Your task to perform on an android device: toggle notification dots Image 0: 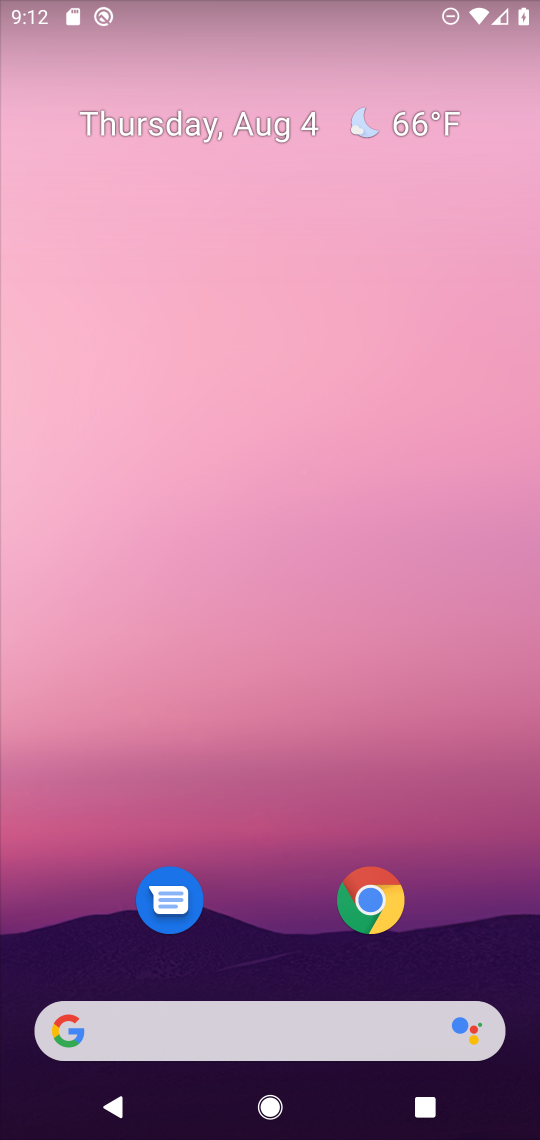
Step 0: drag from (195, 558) to (195, 348)
Your task to perform on an android device: toggle notification dots Image 1: 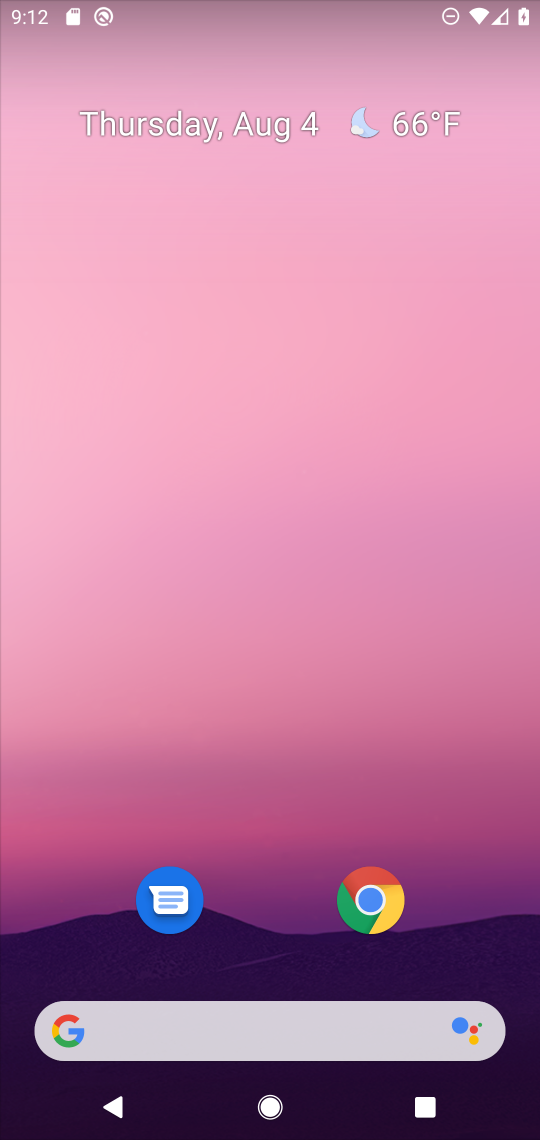
Step 1: drag from (268, 975) to (230, 138)
Your task to perform on an android device: toggle notification dots Image 2: 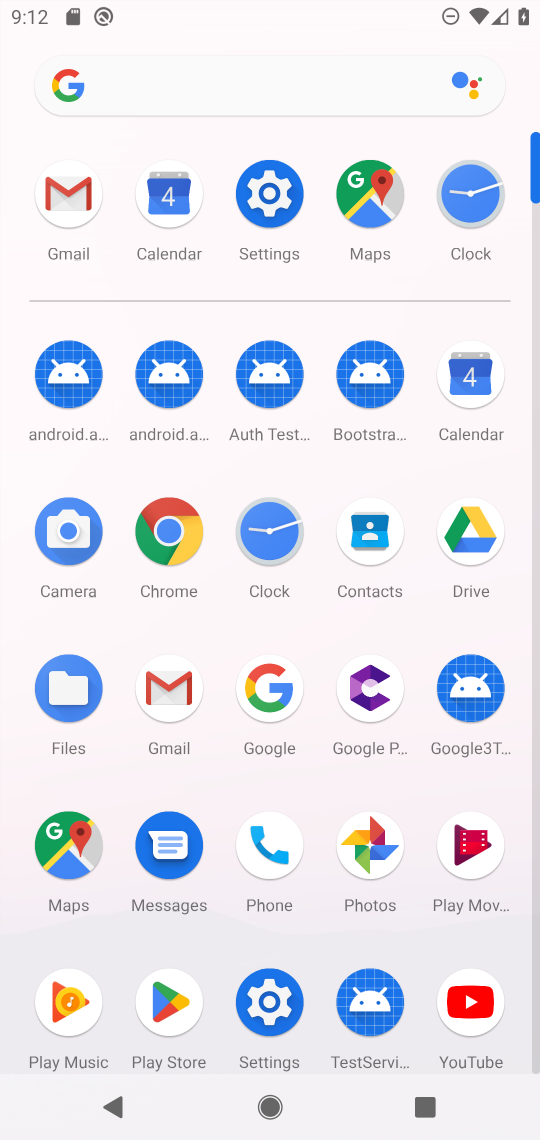
Step 2: click (268, 198)
Your task to perform on an android device: toggle notification dots Image 3: 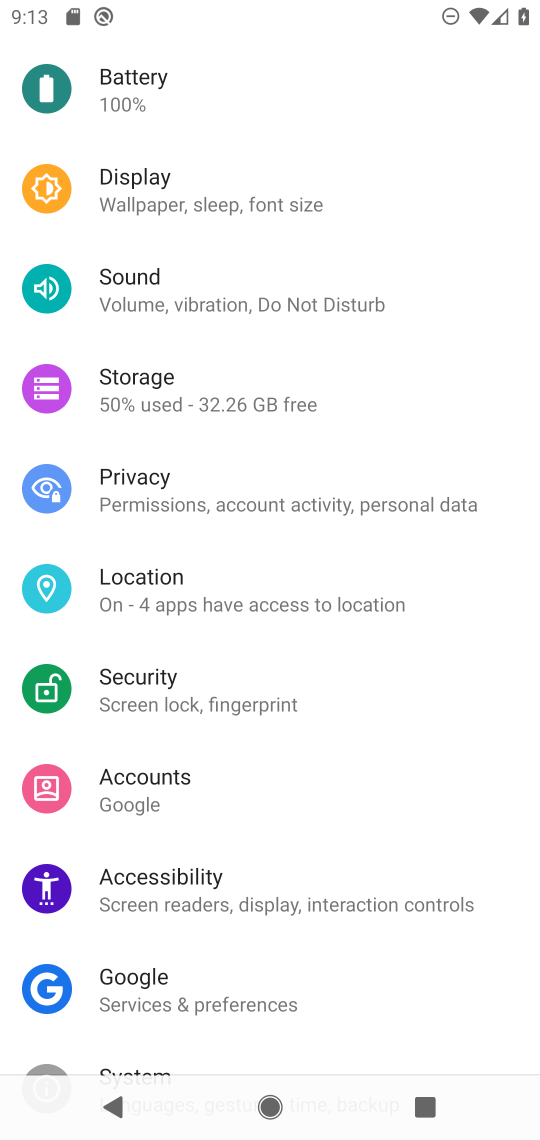
Step 3: drag from (227, 333) to (181, 1122)
Your task to perform on an android device: toggle notification dots Image 4: 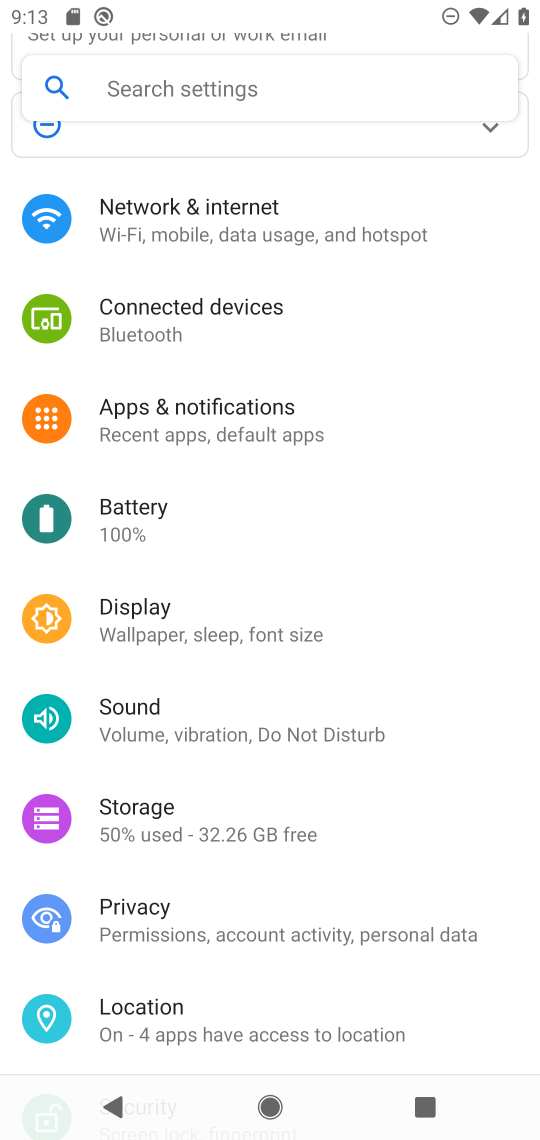
Step 4: click (129, 427)
Your task to perform on an android device: toggle notification dots Image 5: 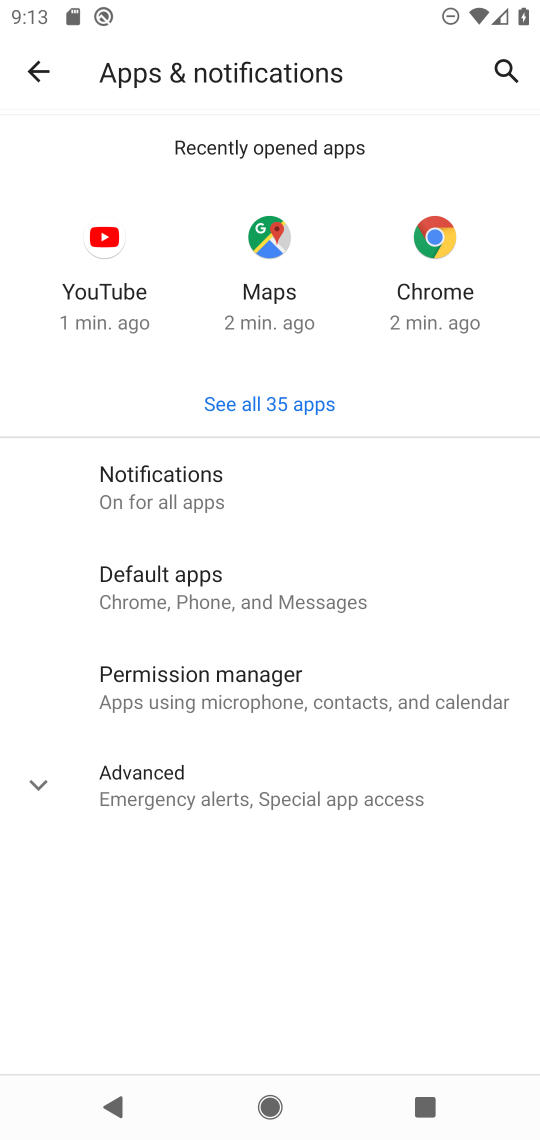
Step 5: click (163, 504)
Your task to perform on an android device: toggle notification dots Image 6: 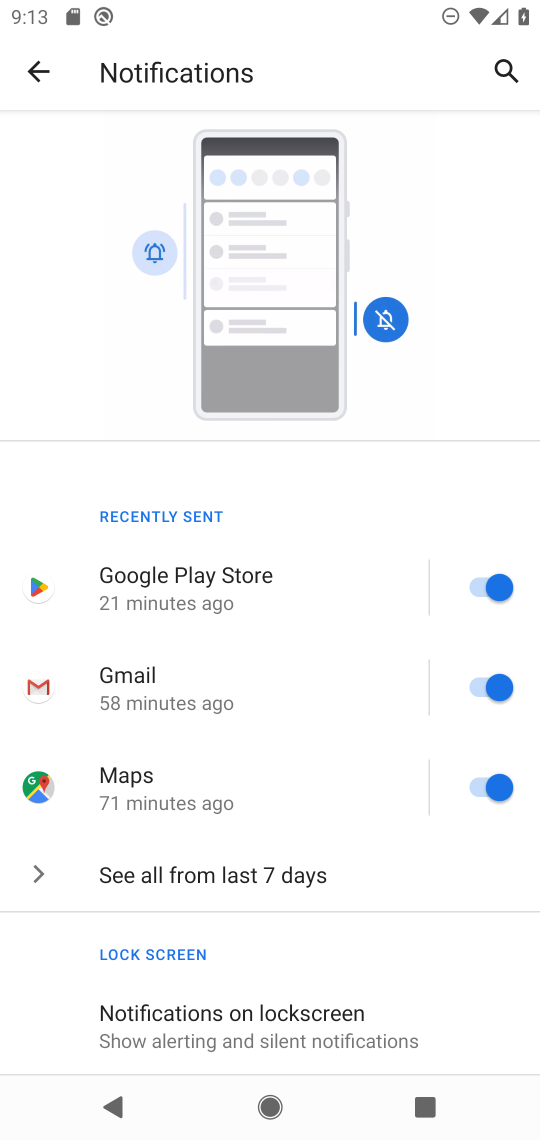
Step 6: drag from (218, 905) to (200, 458)
Your task to perform on an android device: toggle notification dots Image 7: 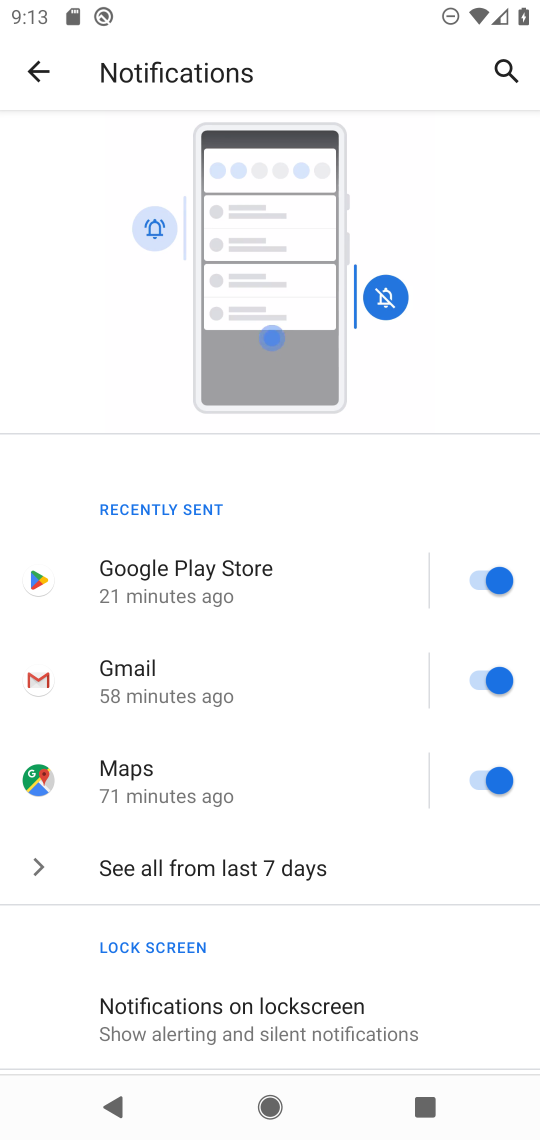
Step 7: drag from (283, 903) to (260, 227)
Your task to perform on an android device: toggle notification dots Image 8: 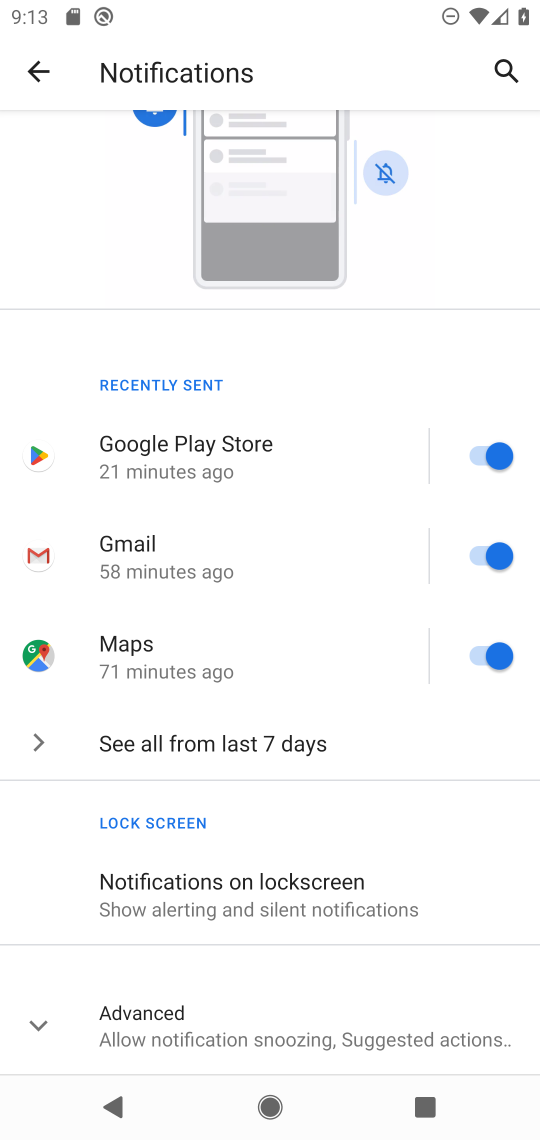
Step 8: click (133, 1023)
Your task to perform on an android device: toggle notification dots Image 9: 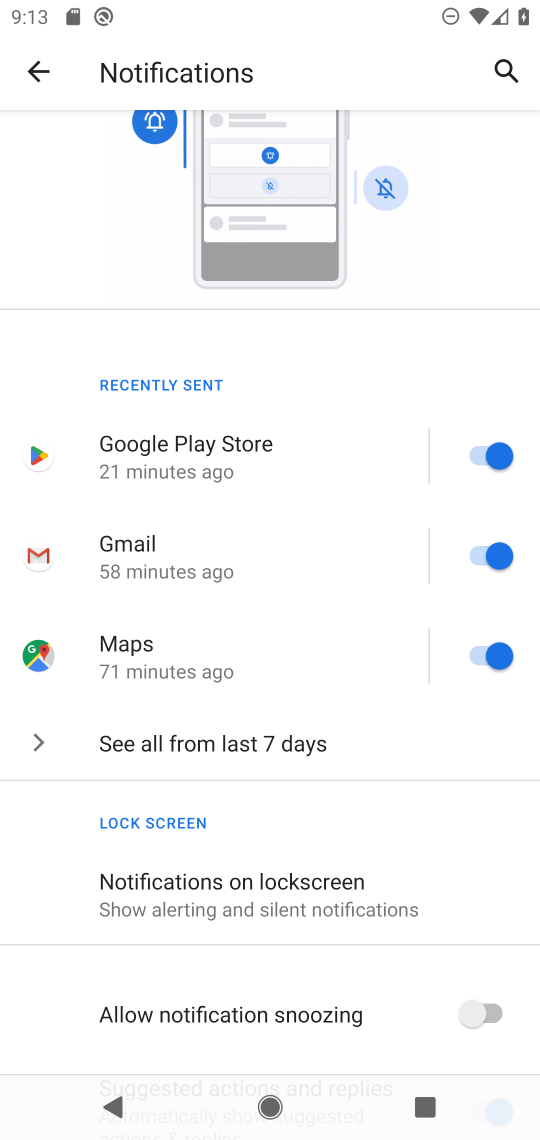
Step 9: drag from (264, 607) to (286, 158)
Your task to perform on an android device: toggle notification dots Image 10: 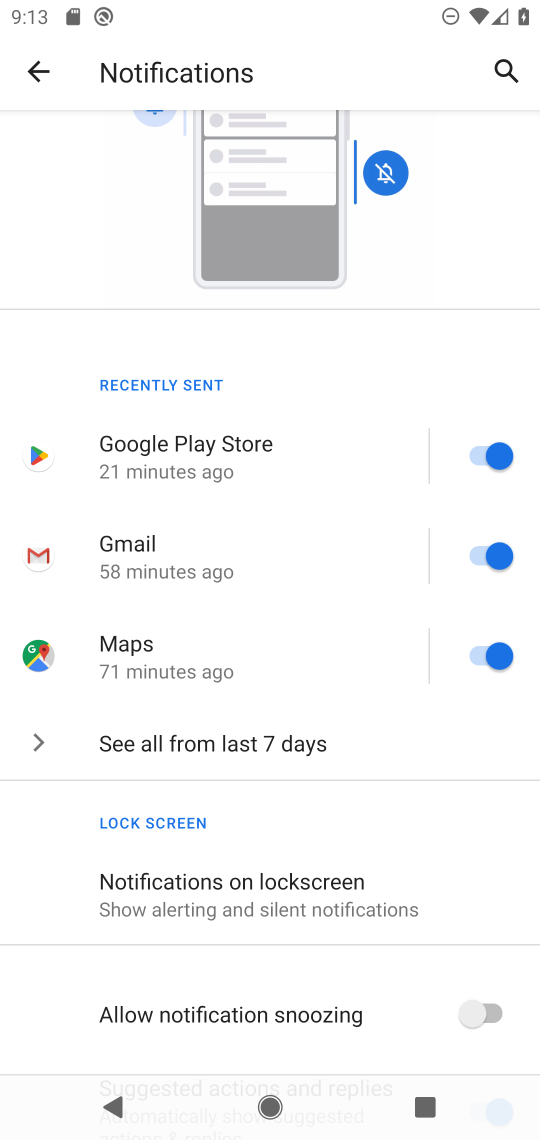
Step 10: drag from (321, 994) to (250, 499)
Your task to perform on an android device: toggle notification dots Image 11: 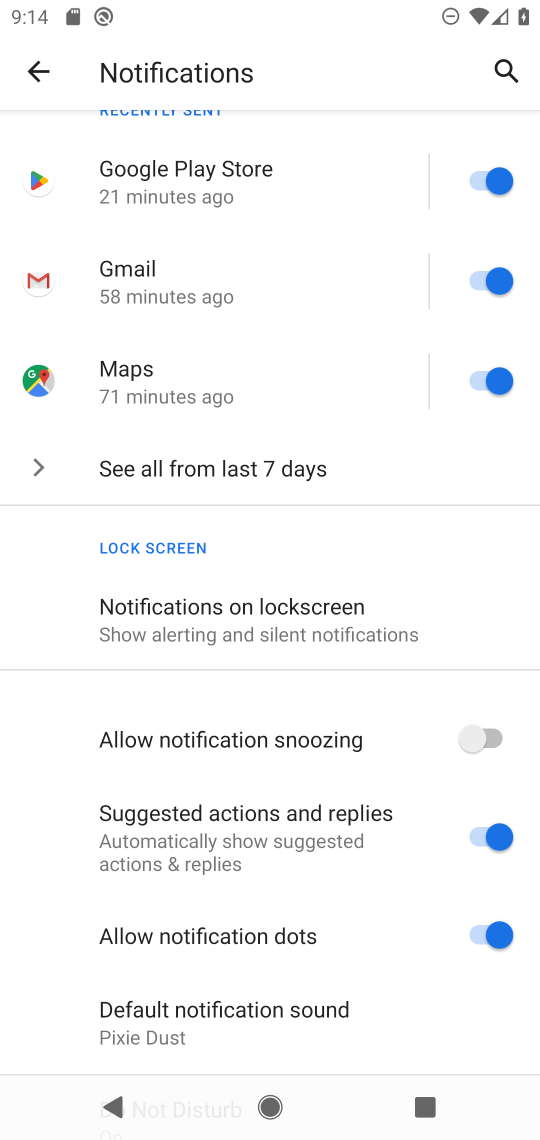
Step 11: click (481, 931)
Your task to perform on an android device: toggle notification dots Image 12: 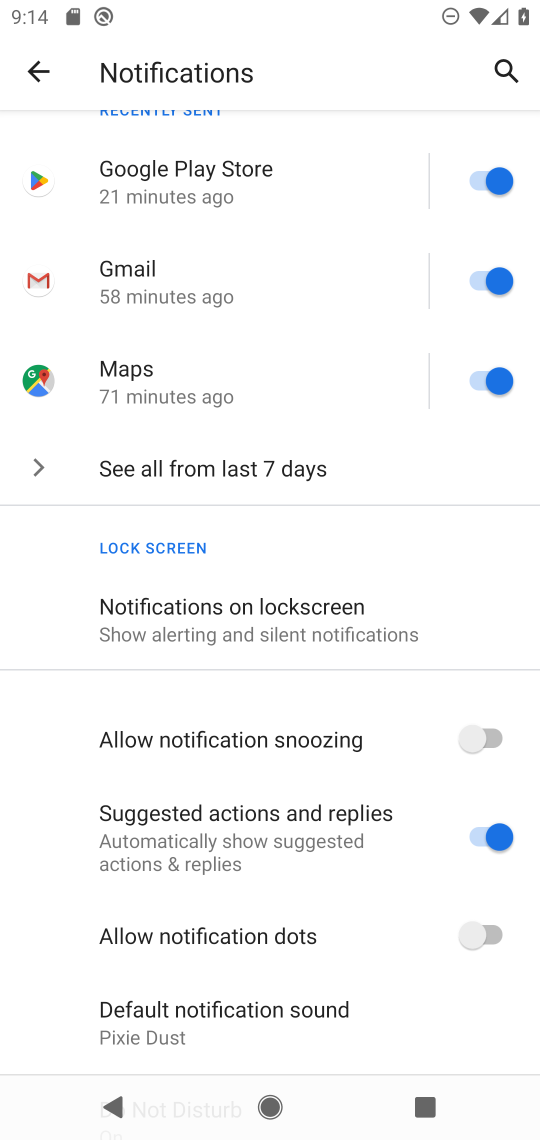
Step 12: task complete